Your task to perform on an android device: Is it going to rain today? Image 0: 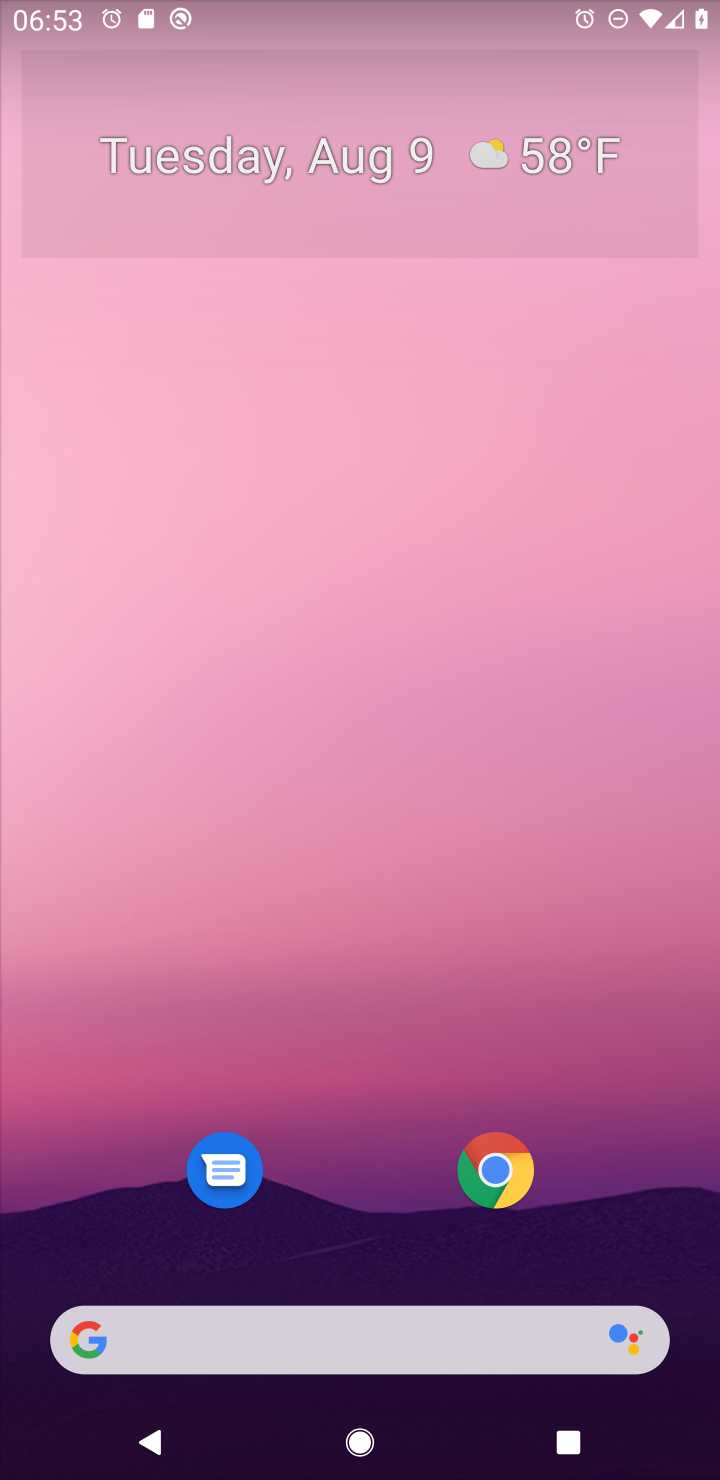
Step 0: press home button
Your task to perform on an android device: Is it going to rain today? Image 1: 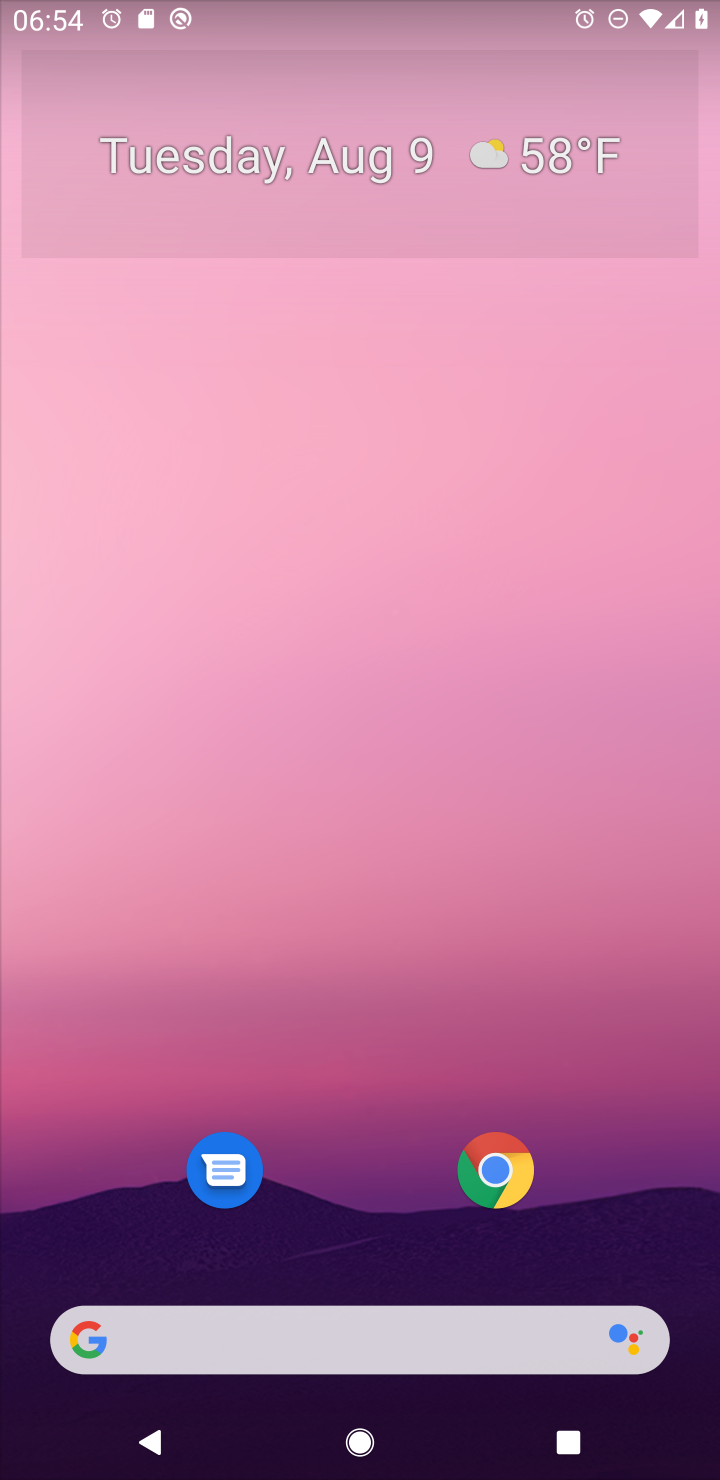
Step 1: click (65, 1356)
Your task to perform on an android device: Is it going to rain today? Image 2: 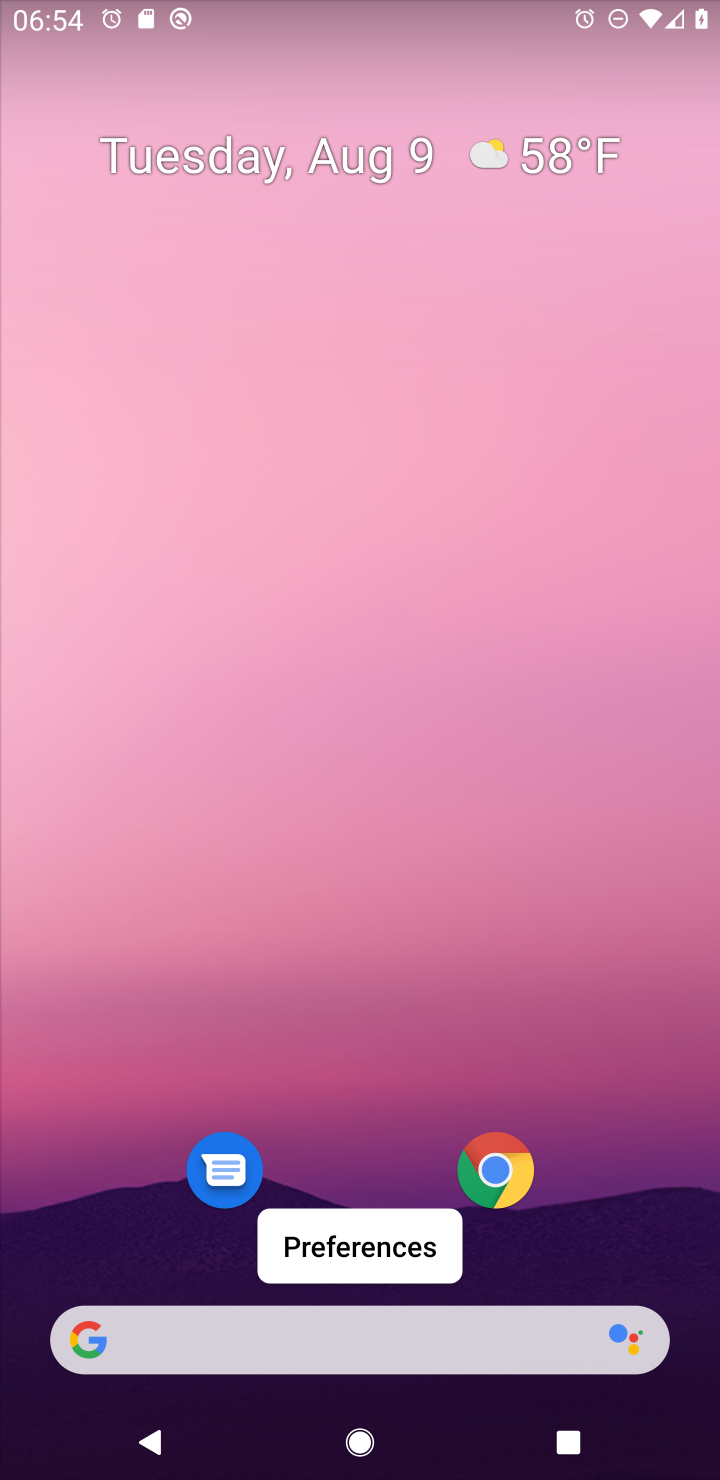
Step 2: click (62, 1342)
Your task to perform on an android device: Is it going to rain today? Image 3: 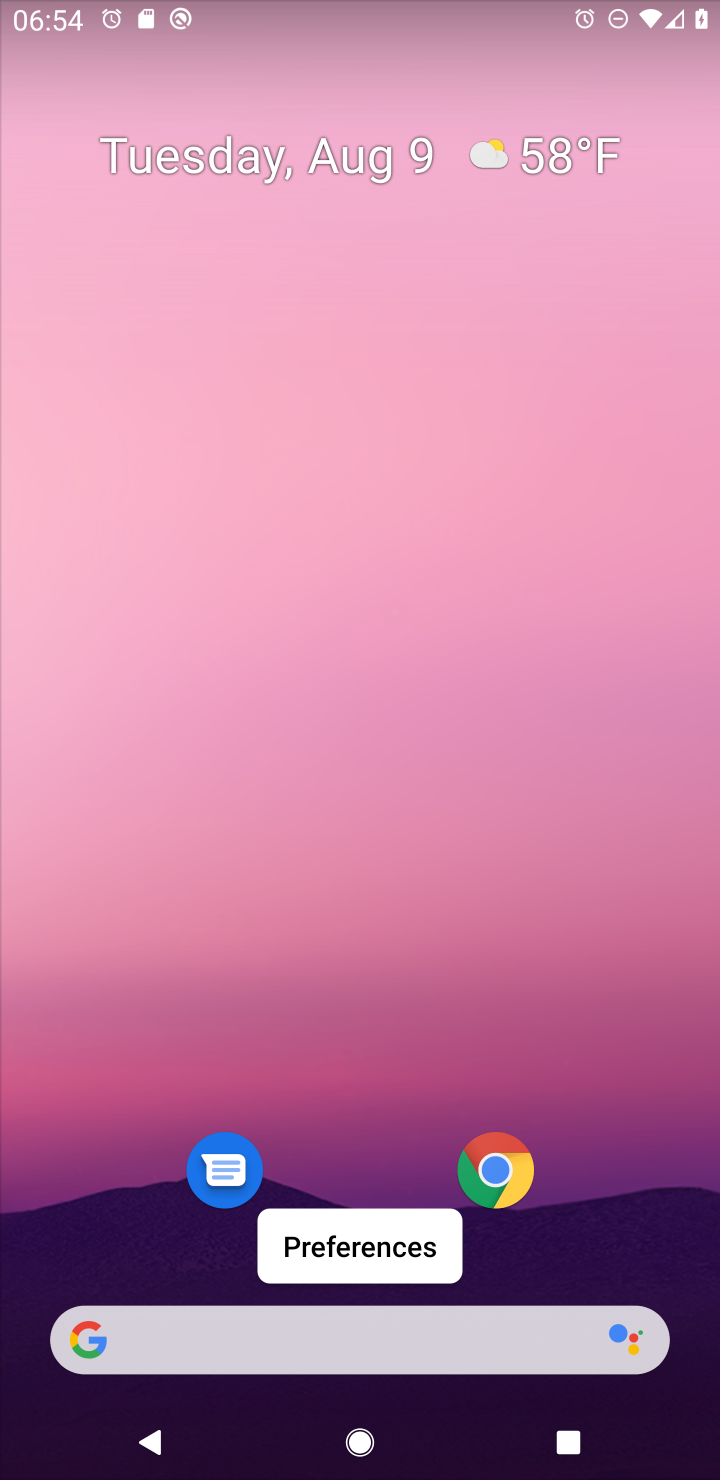
Step 3: click (82, 1343)
Your task to perform on an android device: Is it going to rain today? Image 4: 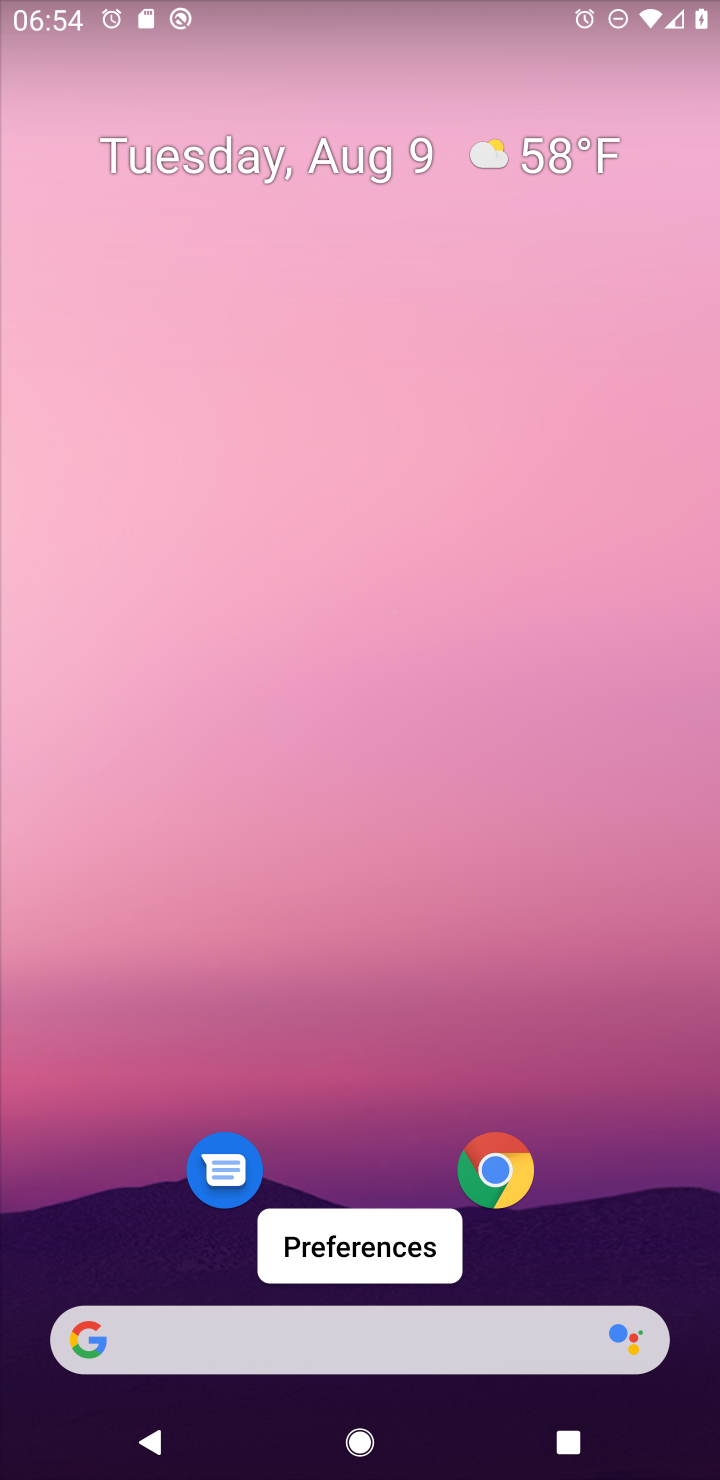
Step 4: click (80, 1356)
Your task to perform on an android device: Is it going to rain today? Image 5: 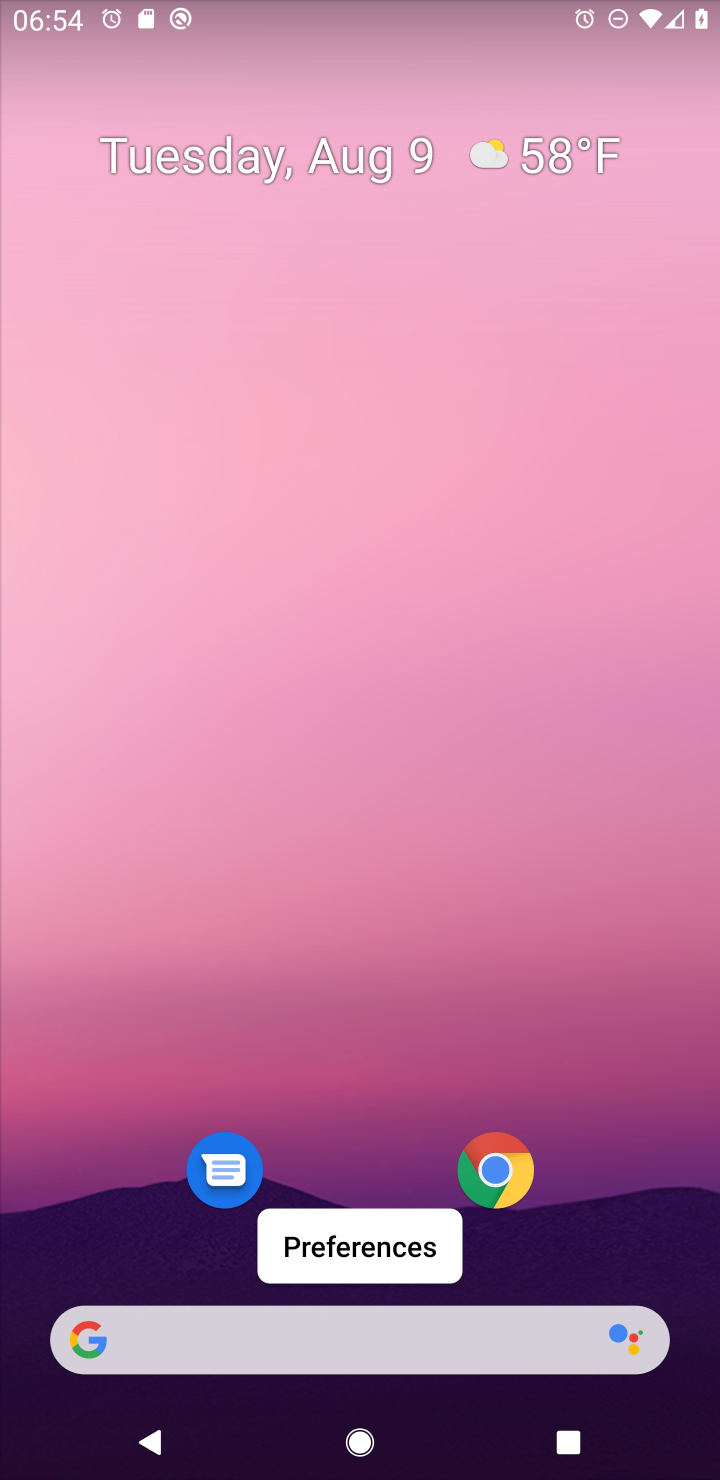
Step 5: click (94, 1335)
Your task to perform on an android device: Is it going to rain today? Image 6: 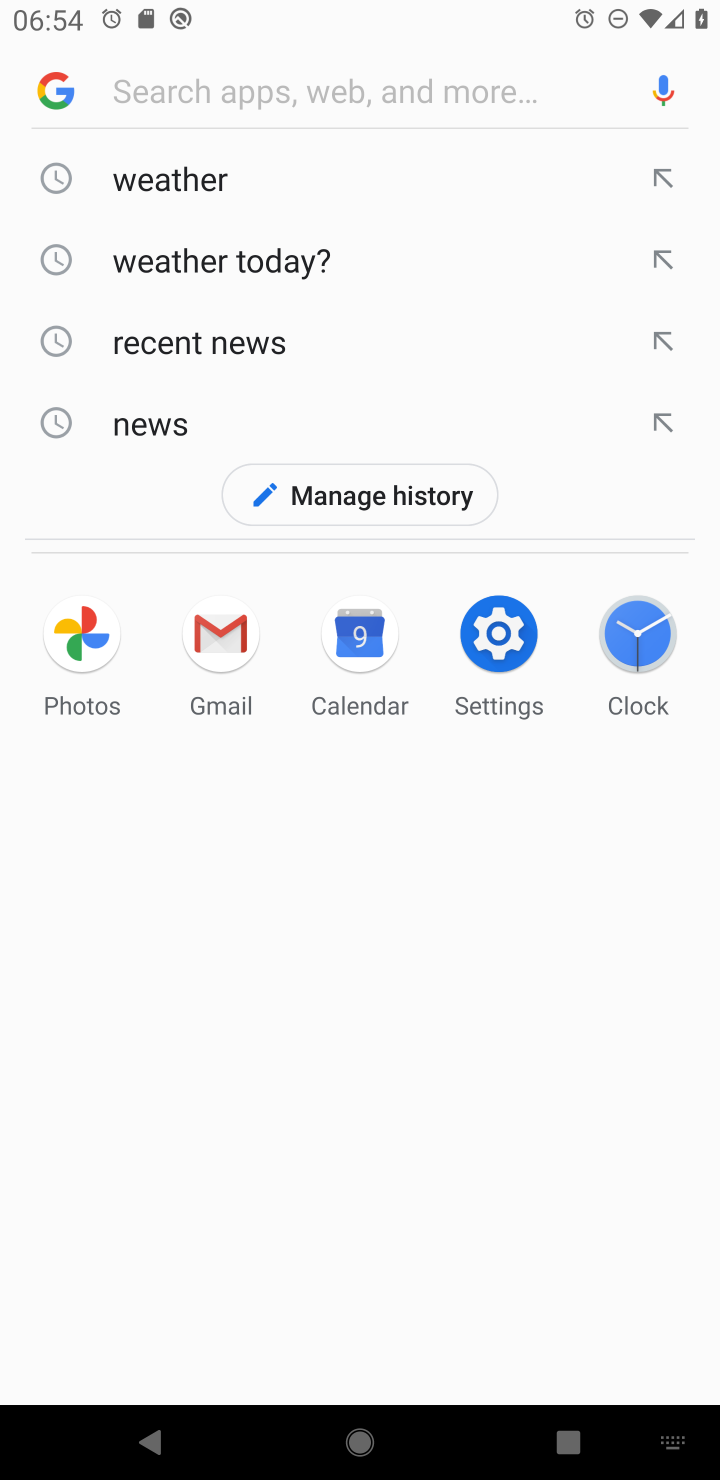
Step 6: type " rain today?"
Your task to perform on an android device: Is it going to rain today? Image 7: 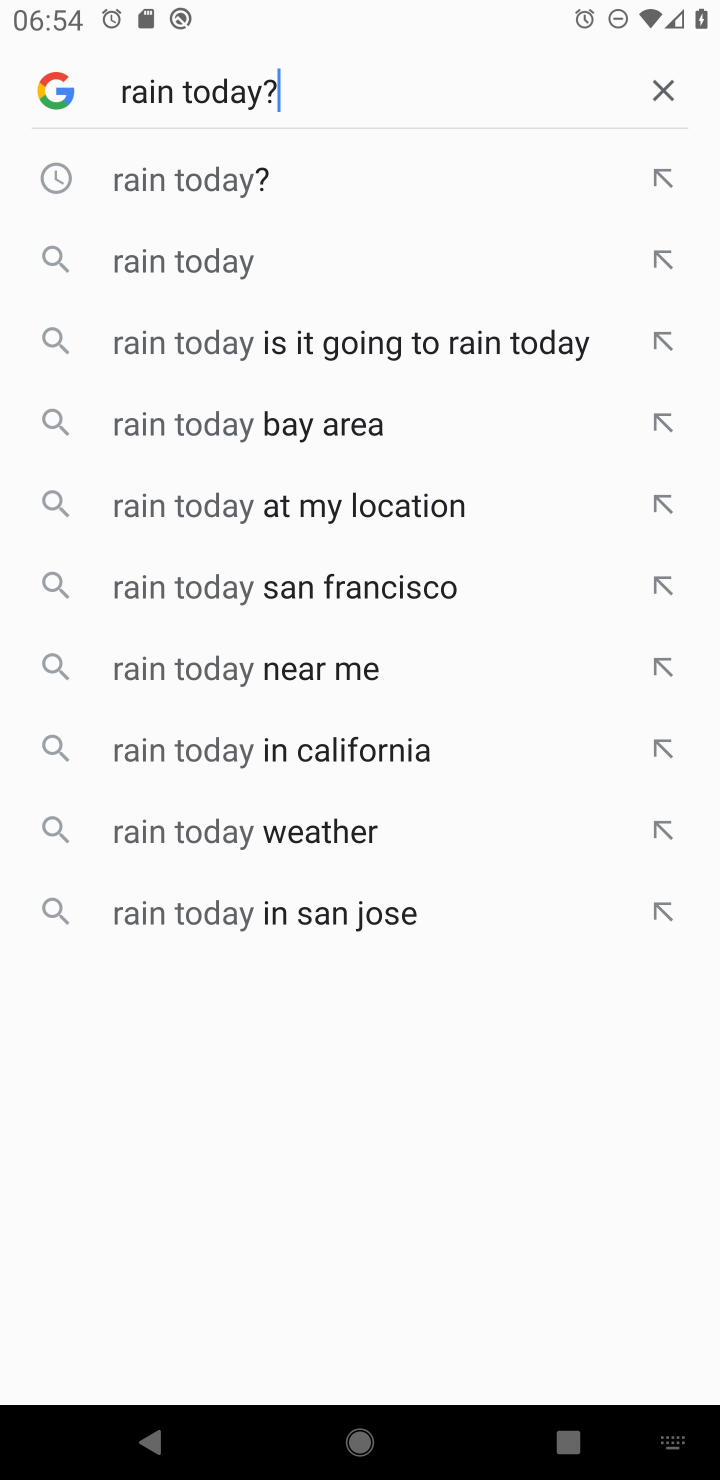
Step 7: press enter
Your task to perform on an android device: Is it going to rain today? Image 8: 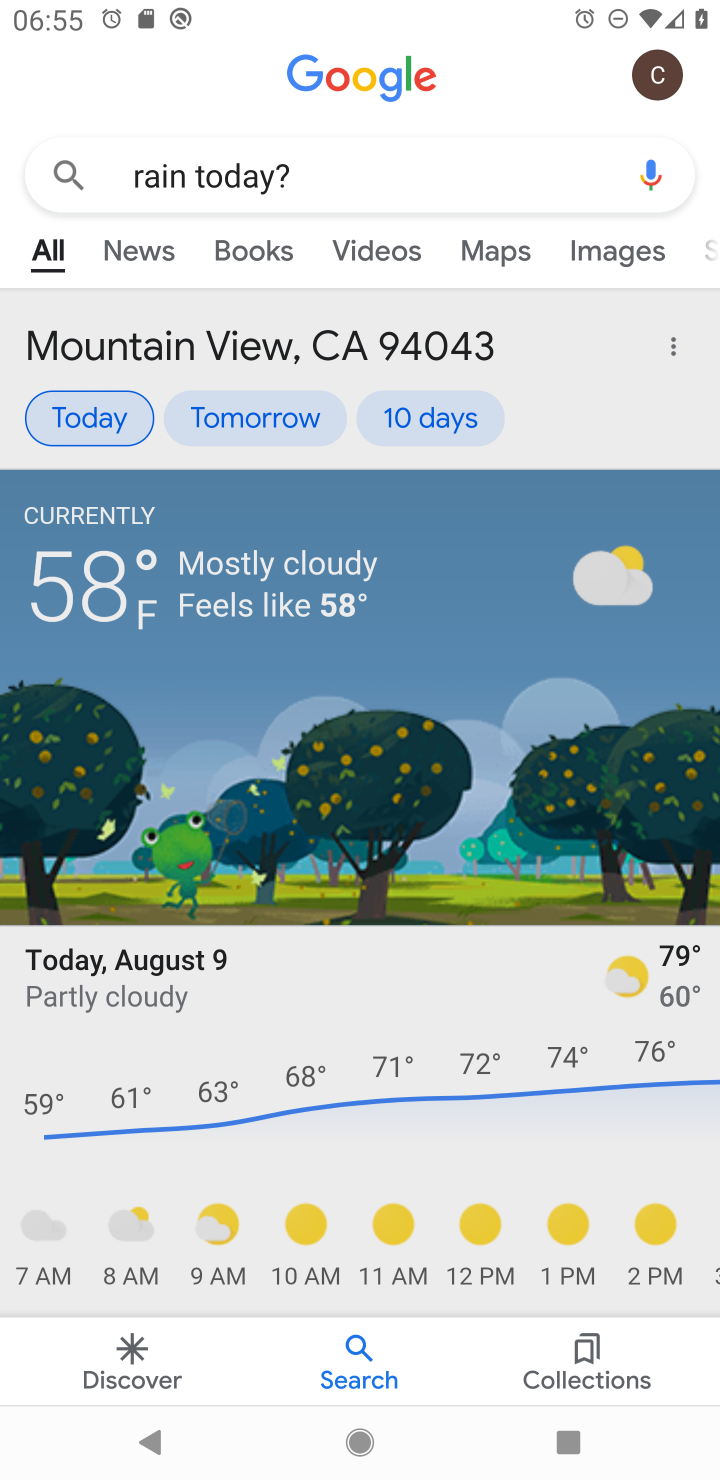
Step 8: task complete